Your task to perform on an android device: Open battery settings Image 0: 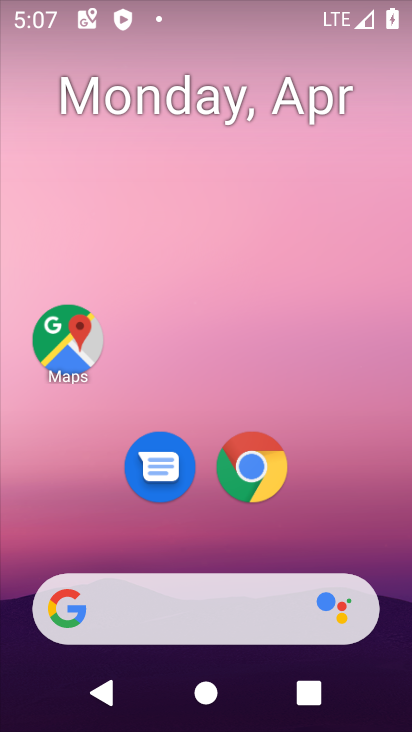
Step 0: click (312, 90)
Your task to perform on an android device: Open battery settings Image 1: 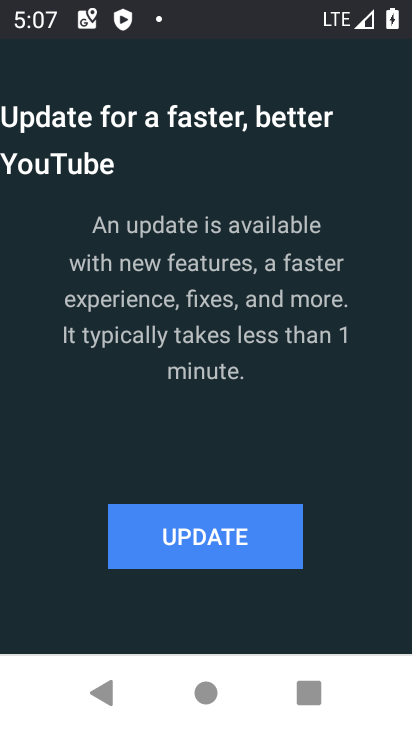
Step 1: press home button
Your task to perform on an android device: Open battery settings Image 2: 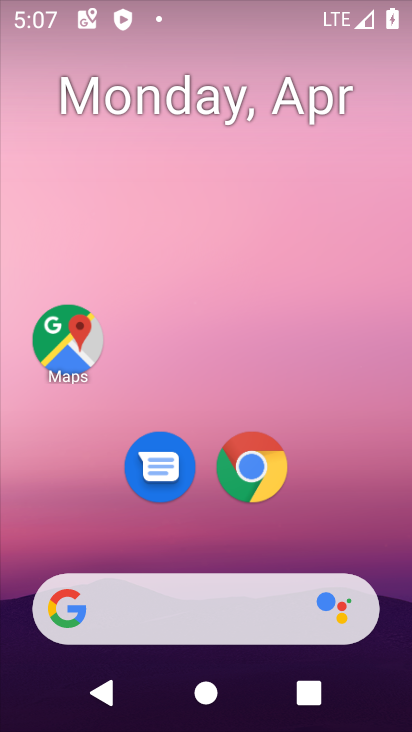
Step 2: drag from (254, 693) to (248, 138)
Your task to perform on an android device: Open battery settings Image 3: 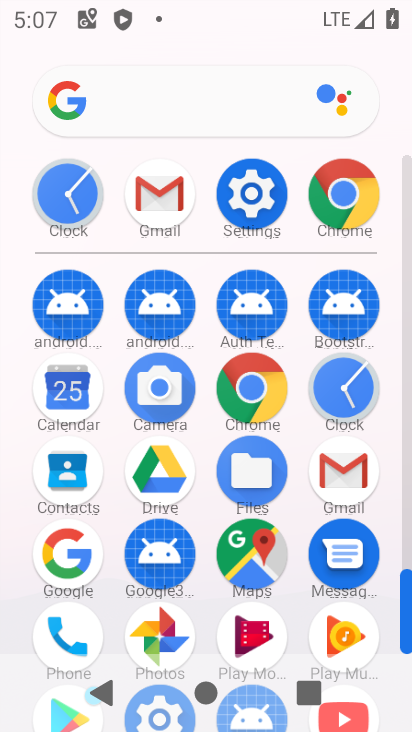
Step 3: drag from (201, 564) to (179, 205)
Your task to perform on an android device: Open battery settings Image 4: 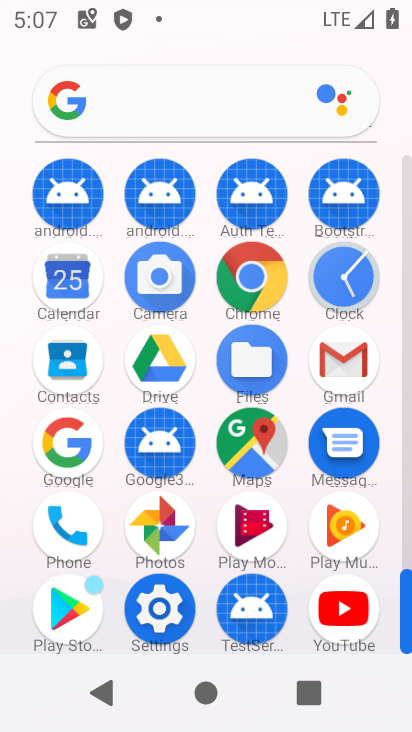
Step 4: click (170, 586)
Your task to perform on an android device: Open battery settings Image 5: 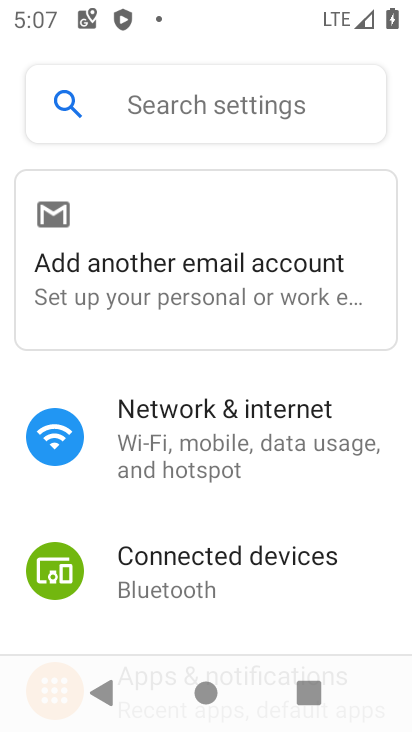
Step 5: drag from (173, 614) to (109, 99)
Your task to perform on an android device: Open battery settings Image 6: 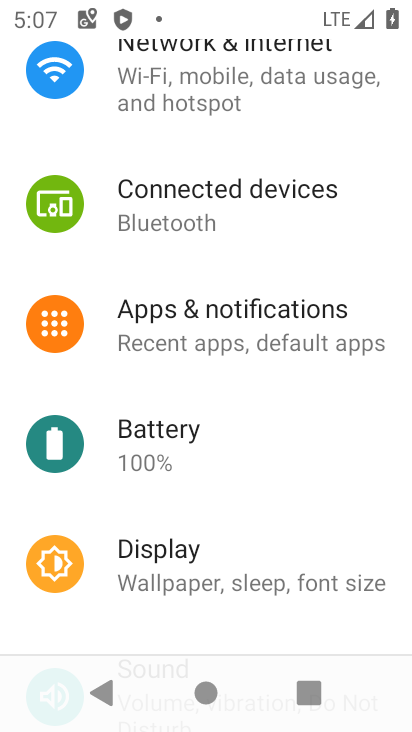
Step 6: click (153, 433)
Your task to perform on an android device: Open battery settings Image 7: 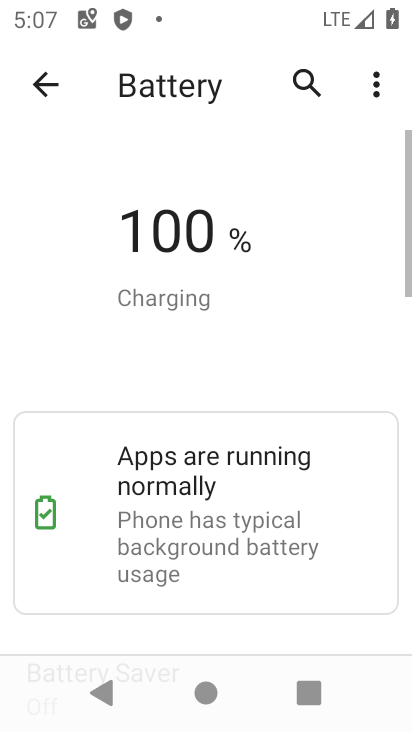
Step 7: task complete